Your task to perform on an android device: uninstall "Cash App" Image 0: 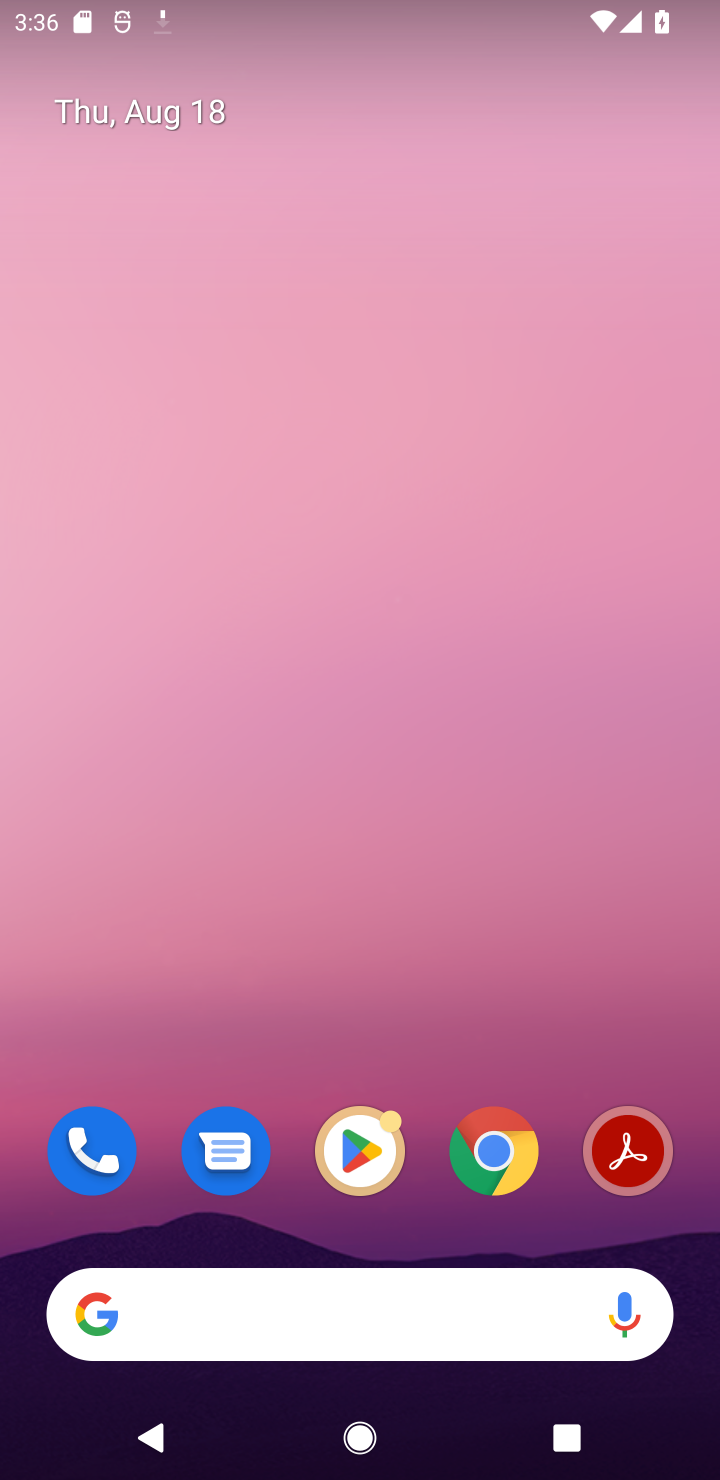
Step 0: drag from (424, 1252) to (548, 276)
Your task to perform on an android device: uninstall "Cash App" Image 1: 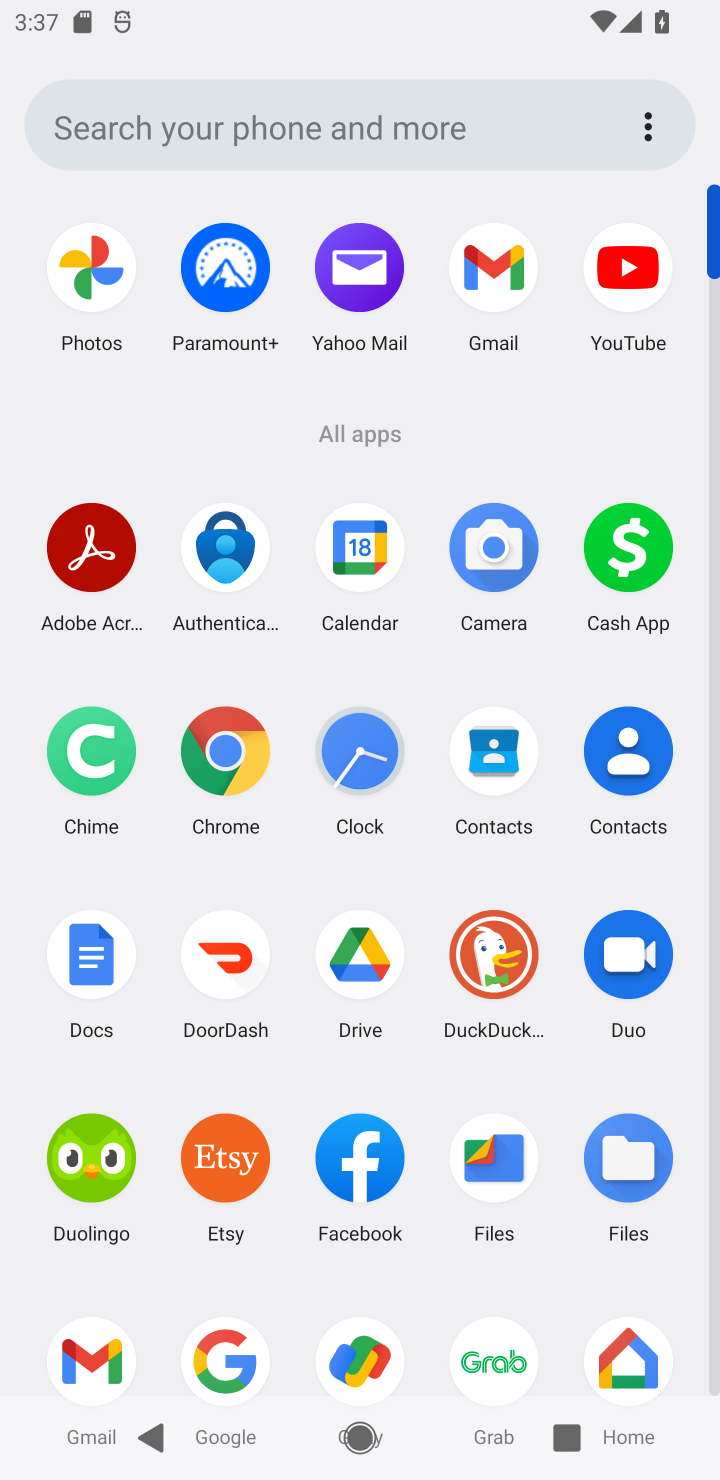
Step 1: click (611, 594)
Your task to perform on an android device: uninstall "Cash App" Image 2: 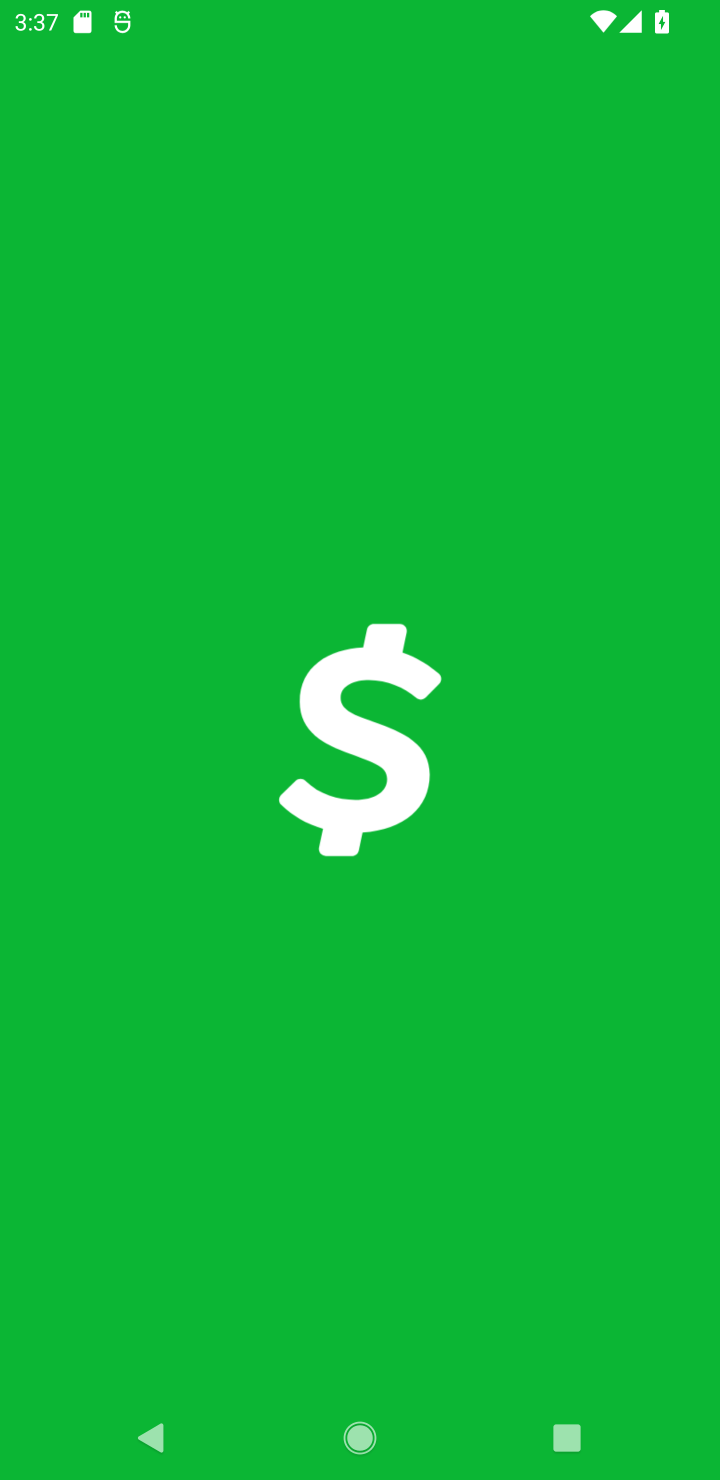
Step 2: press home button
Your task to perform on an android device: uninstall "Cash App" Image 3: 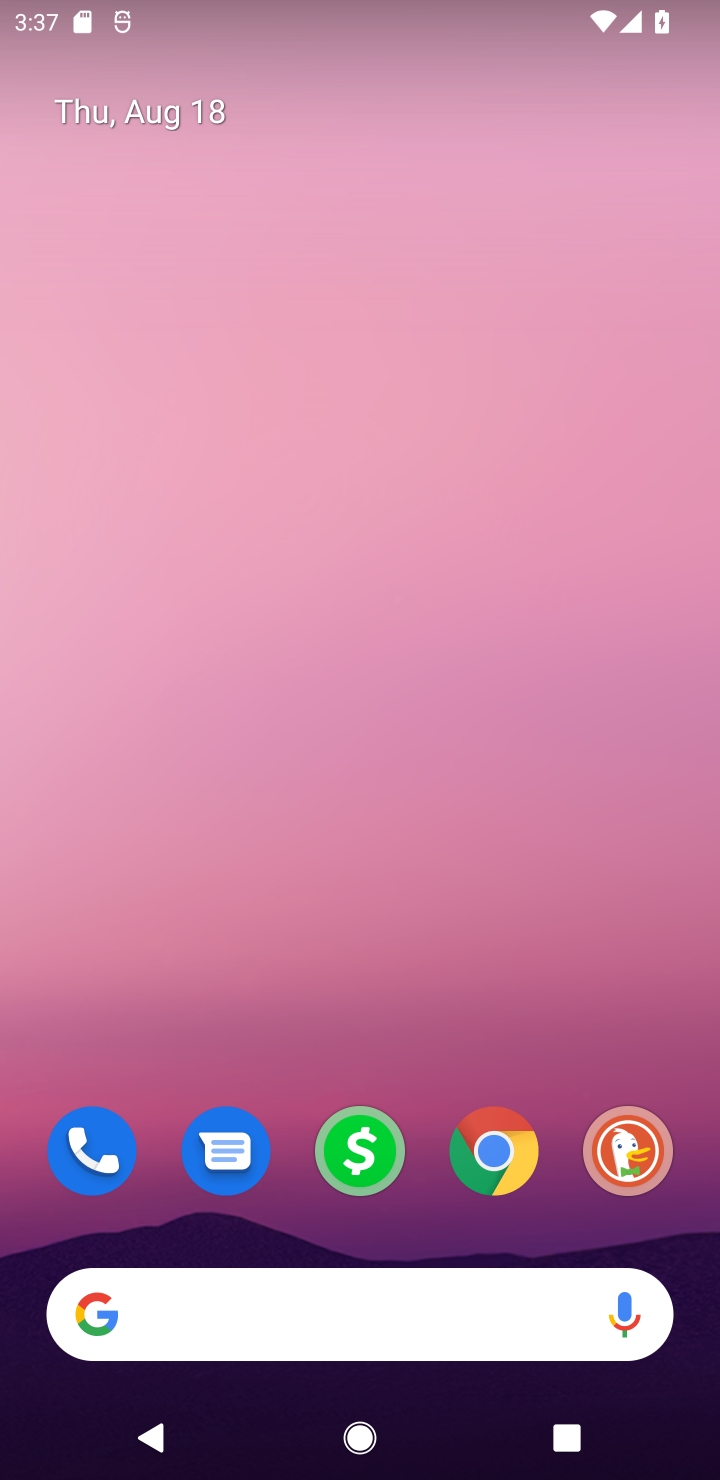
Step 3: click (370, 1172)
Your task to perform on an android device: uninstall "Cash App" Image 4: 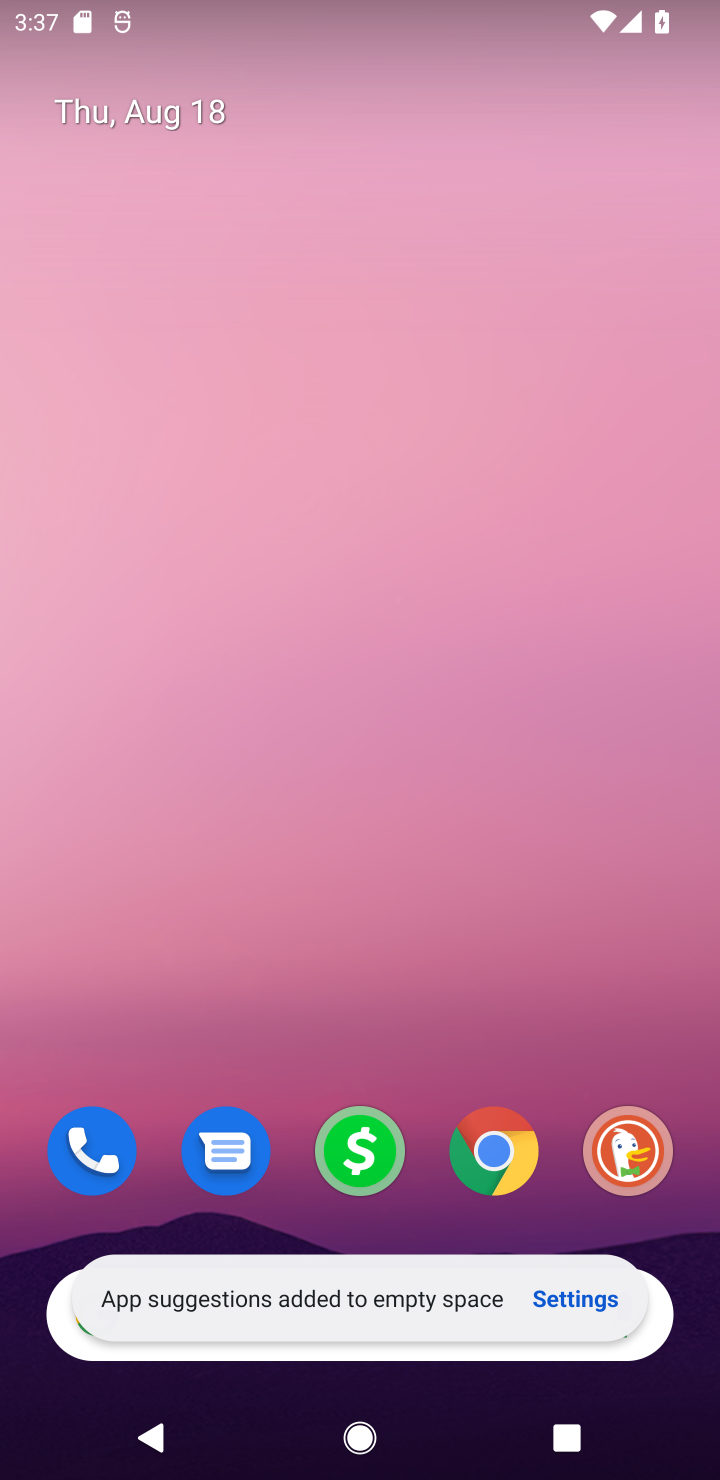
Step 4: click (520, 998)
Your task to perform on an android device: uninstall "Cash App" Image 5: 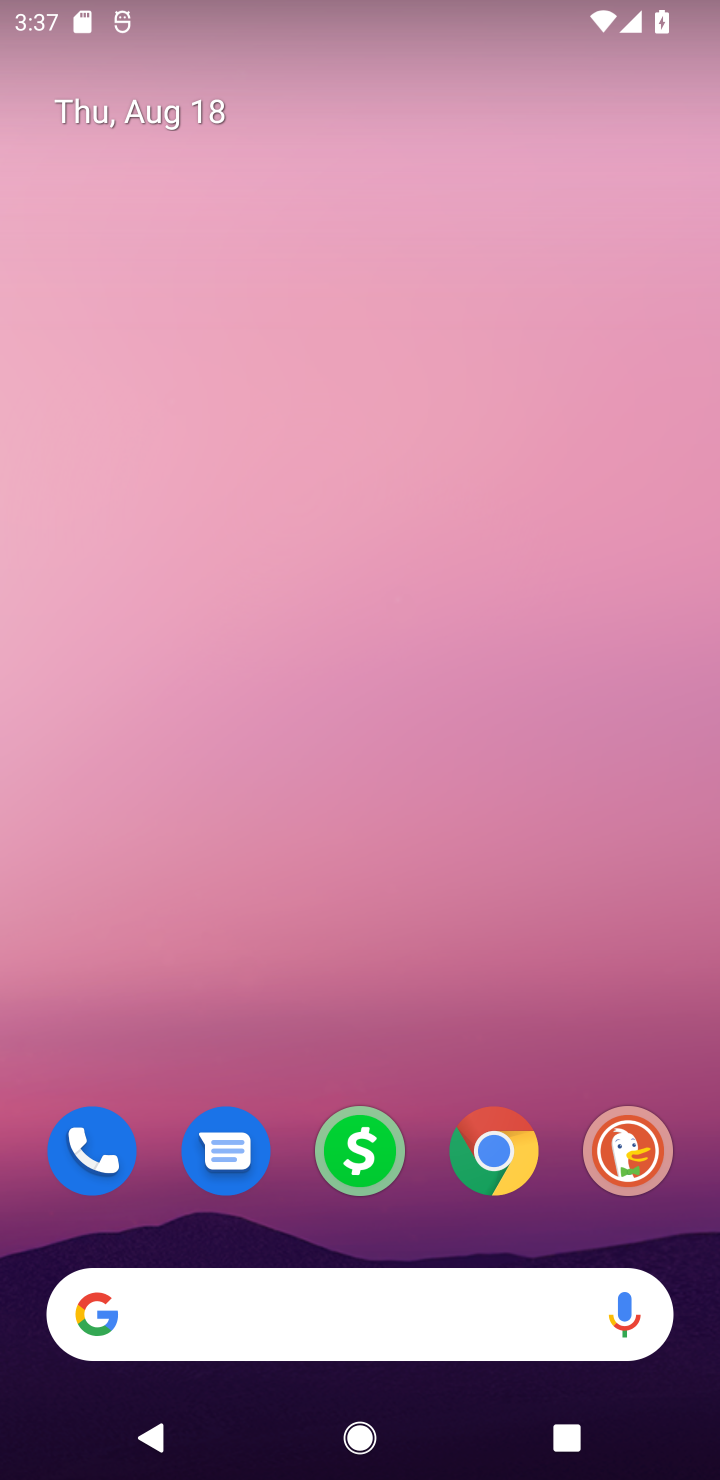
Step 5: click (359, 1159)
Your task to perform on an android device: uninstall "Cash App" Image 6: 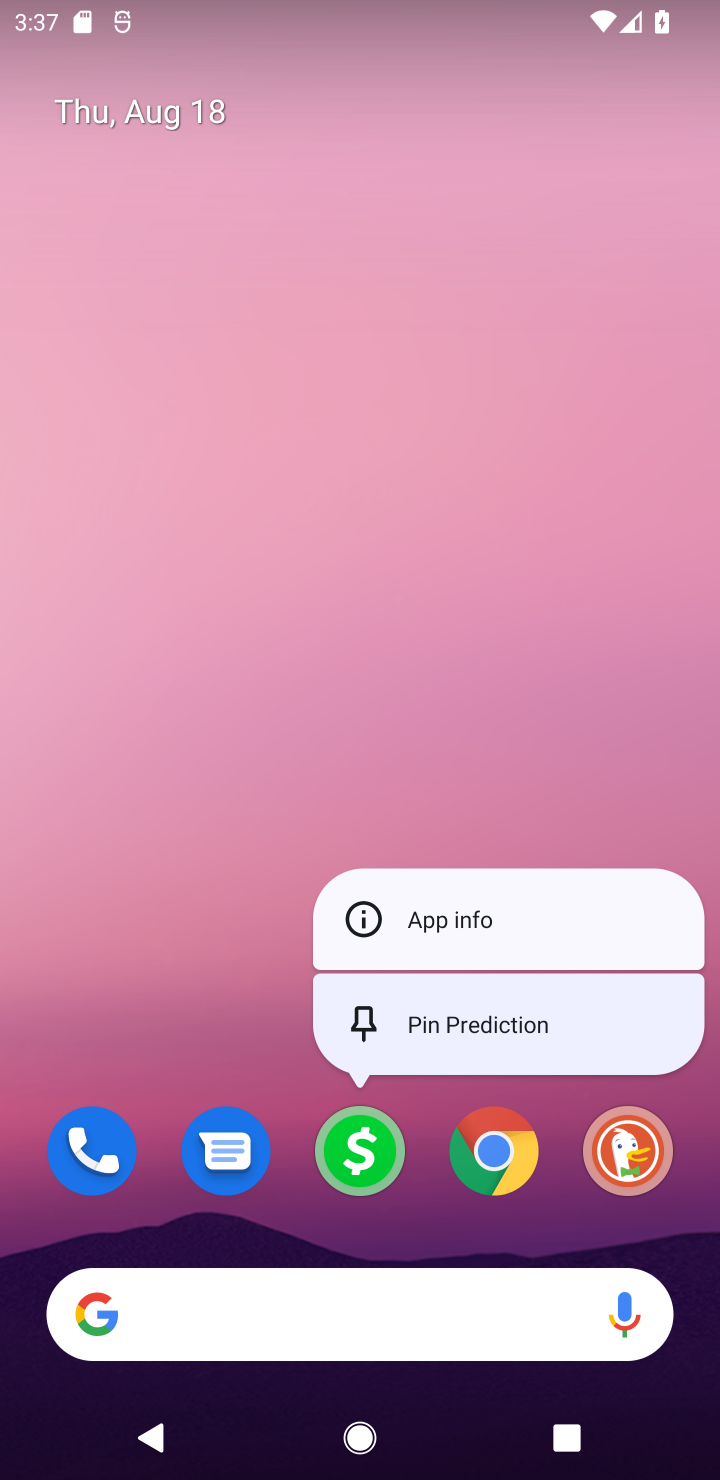
Step 6: click (497, 897)
Your task to perform on an android device: uninstall "Cash App" Image 7: 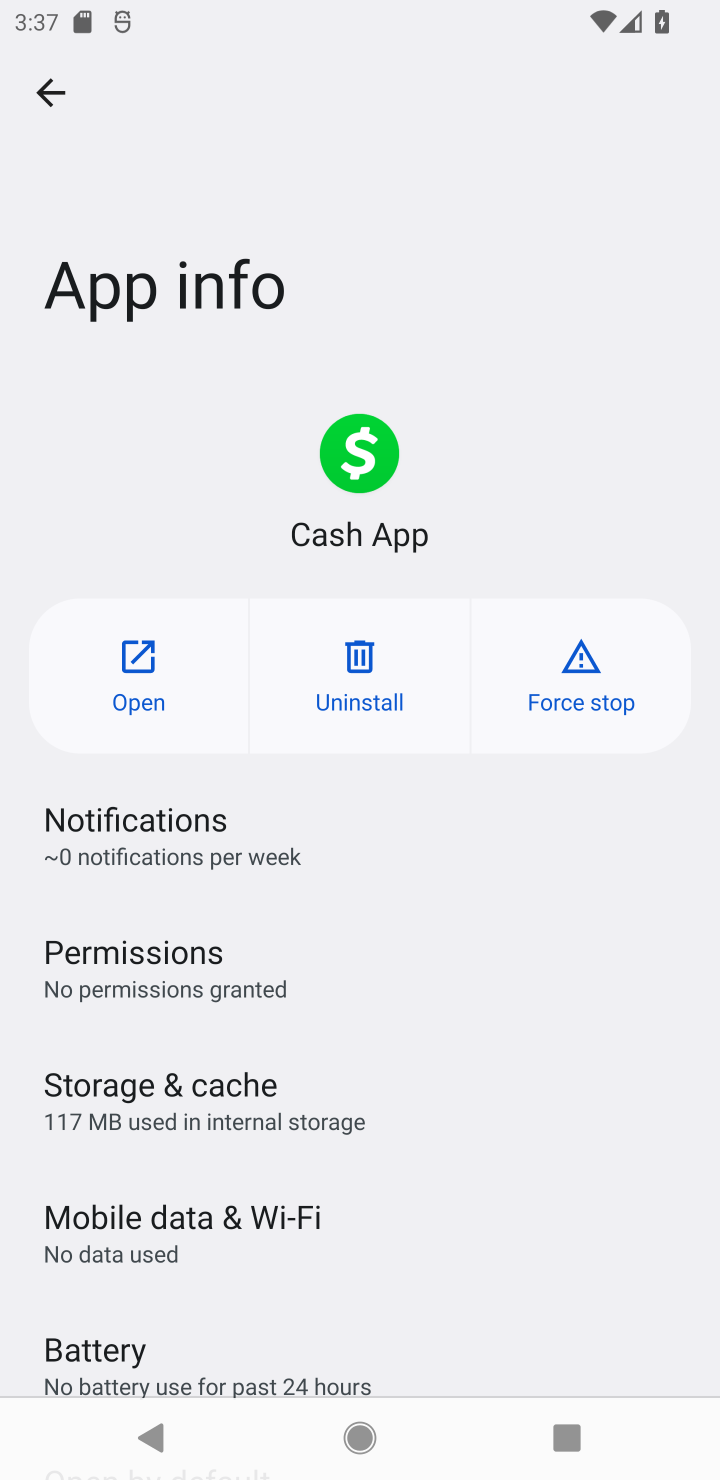
Step 7: click (338, 683)
Your task to perform on an android device: uninstall "Cash App" Image 8: 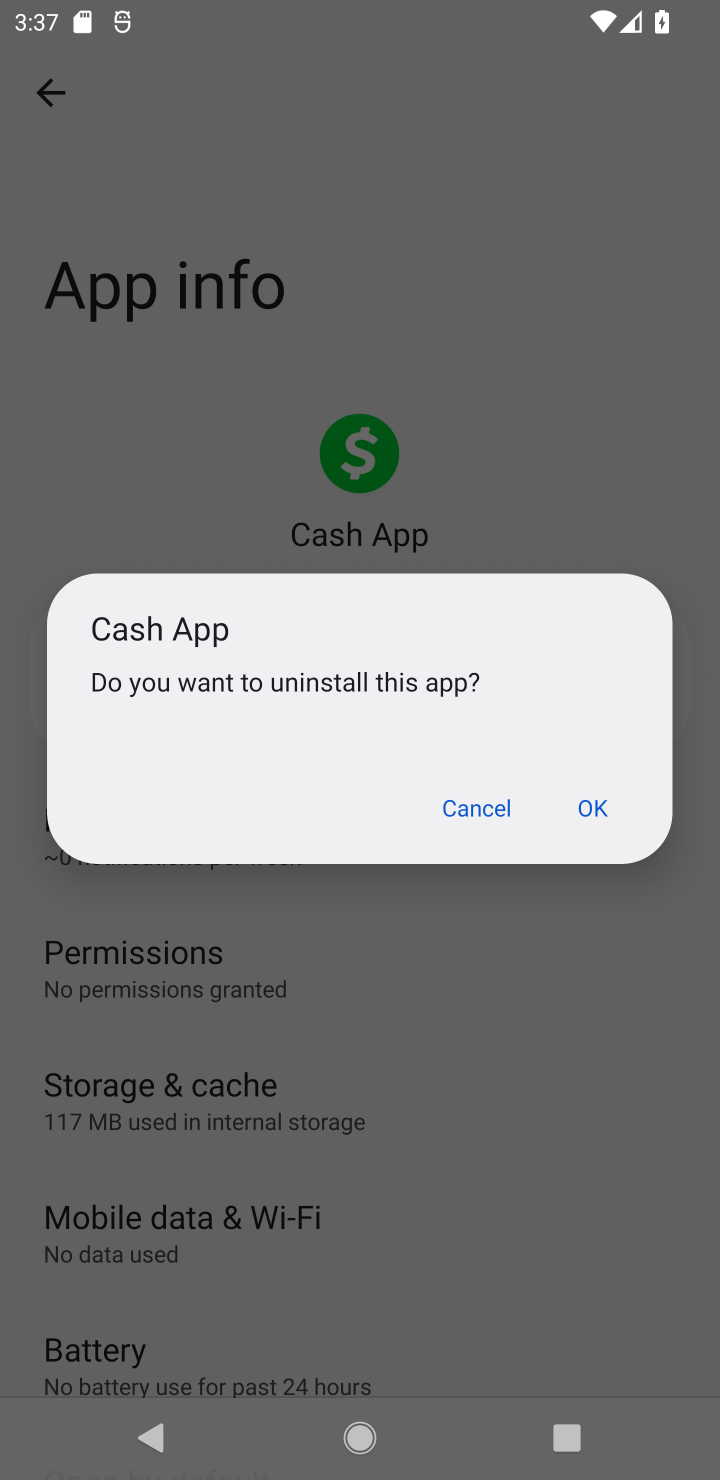
Step 8: click (578, 822)
Your task to perform on an android device: uninstall "Cash App" Image 9: 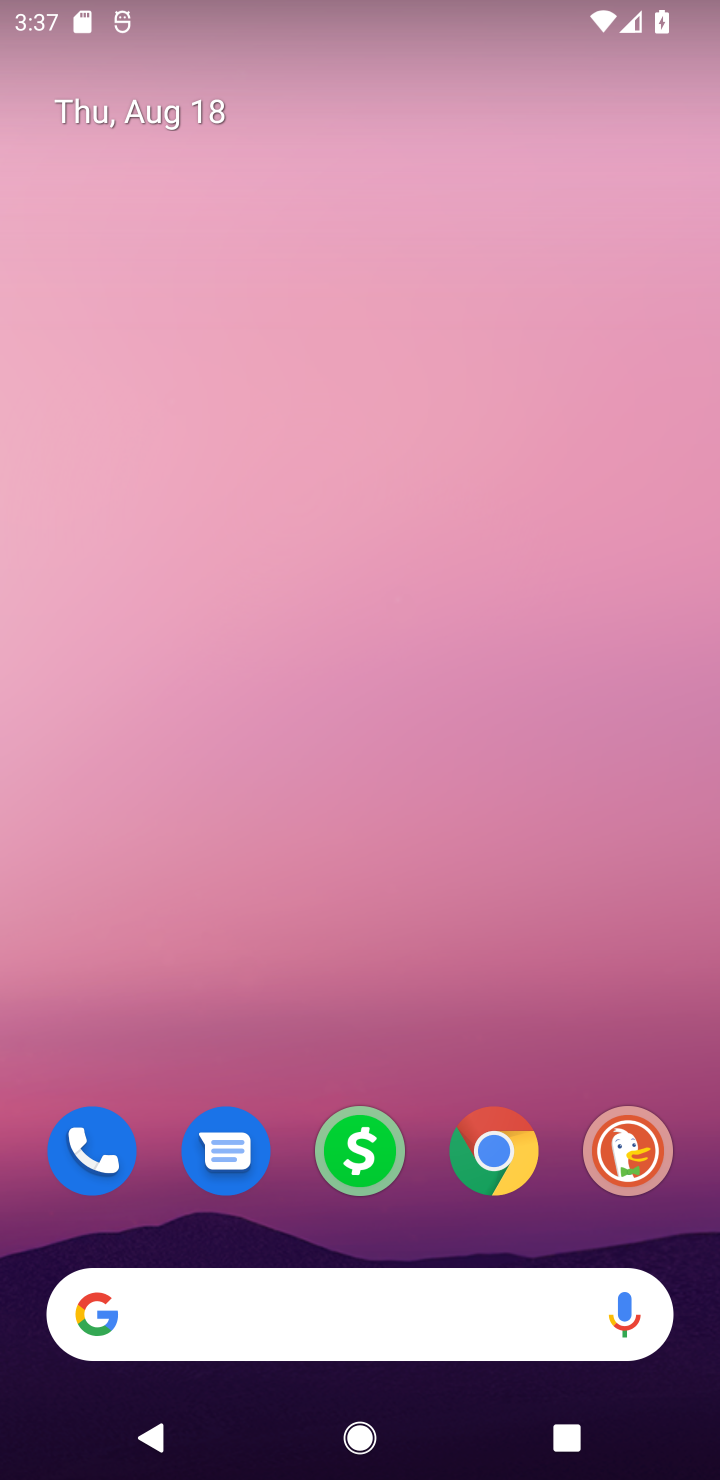
Step 9: task complete